Your task to perform on an android device: set the timer Image 0: 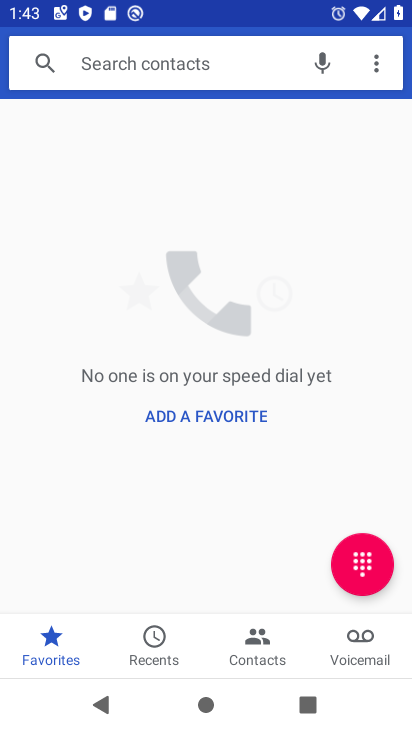
Step 0: press home button
Your task to perform on an android device: set the timer Image 1: 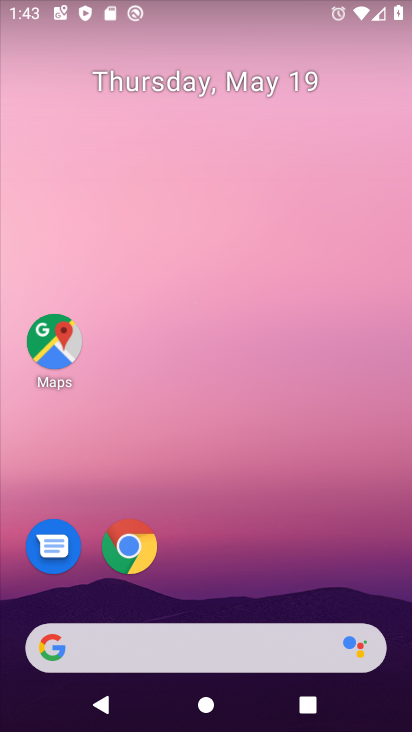
Step 1: drag from (209, 579) to (202, 278)
Your task to perform on an android device: set the timer Image 2: 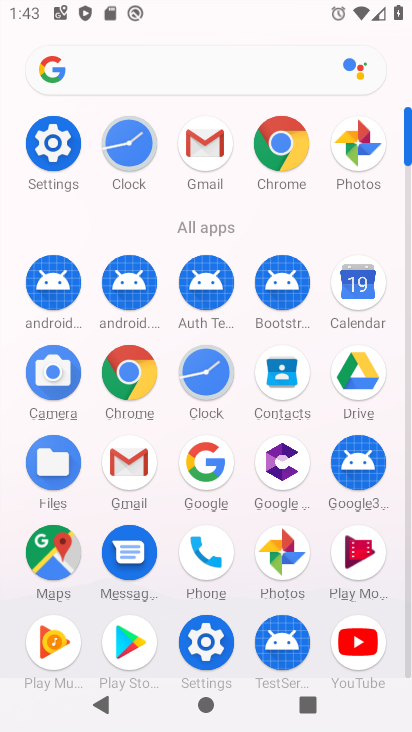
Step 2: click (210, 379)
Your task to perform on an android device: set the timer Image 3: 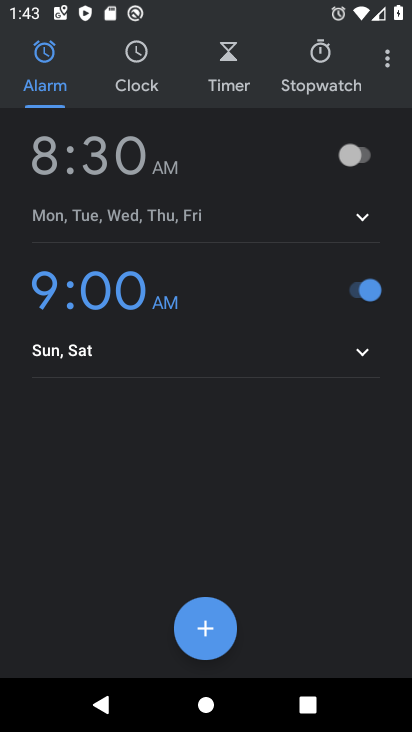
Step 3: click (243, 56)
Your task to perform on an android device: set the timer Image 4: 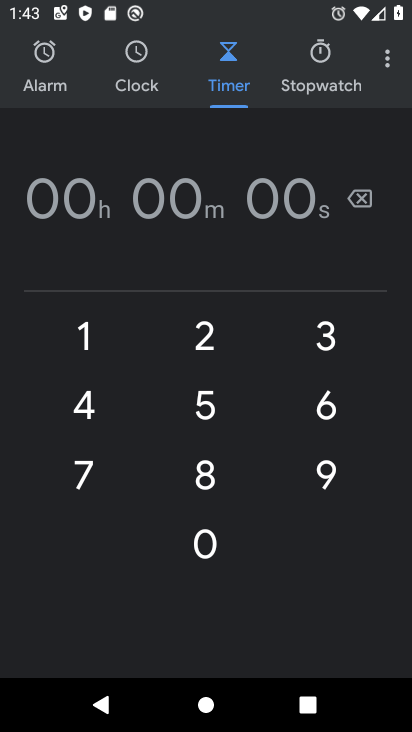
Step 4: click (178, 214)
Your task to perform on an android device: set the timer Image 5: 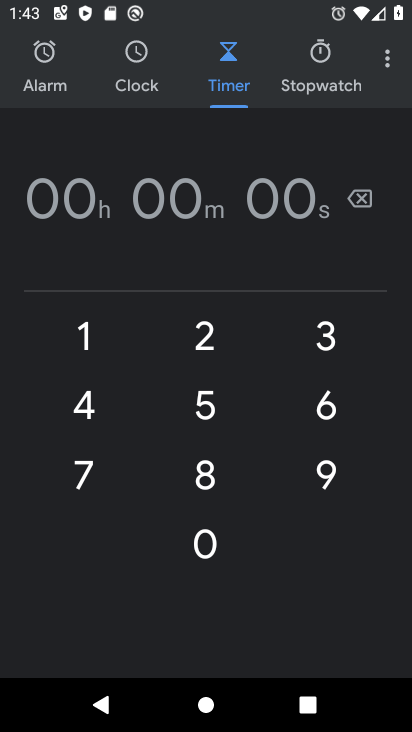
Step 5: task complete